Your task to perform on an android device: change timer sound Image 0: 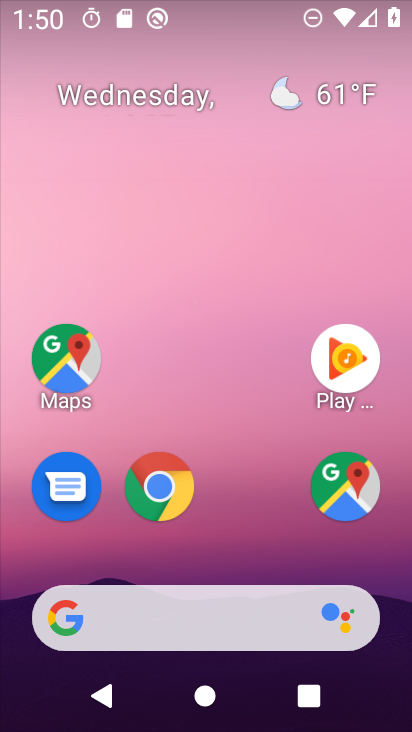
Step 0: press home button
Your task to perform on an android device: change timer sound Image 1: 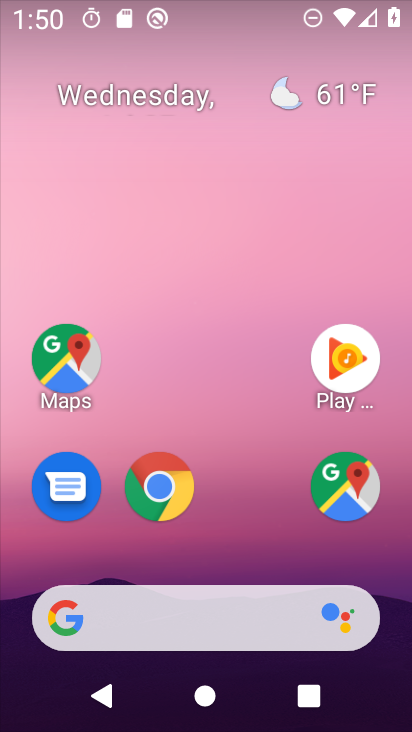
Step 1: drag from (264, 521) to (268, 246)
Your task to perform on an android device: change timer sound Image 2: 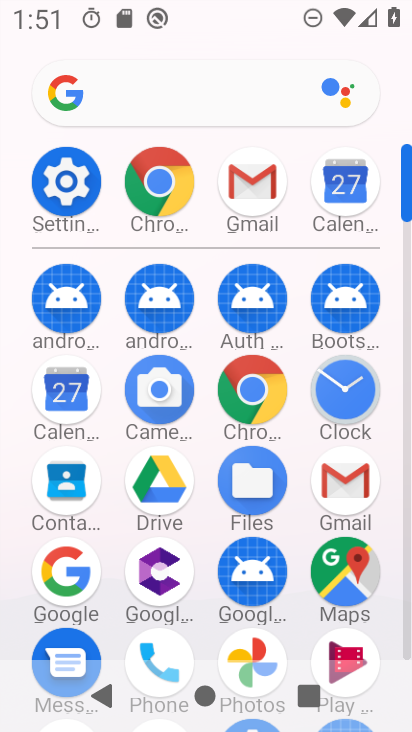
Step 2: drag from (258, 337) to (262, 237)
Your task to perform on an android device: change timer sound Image 3: 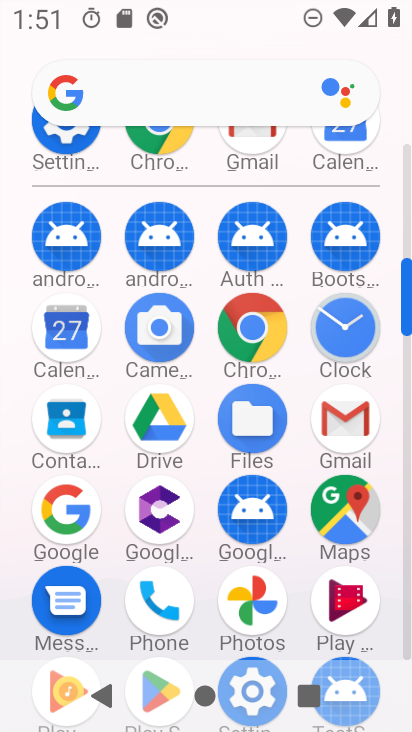
Step 3: click (350, 334)
Your task to perform on an android device: change timer sound Image 4: 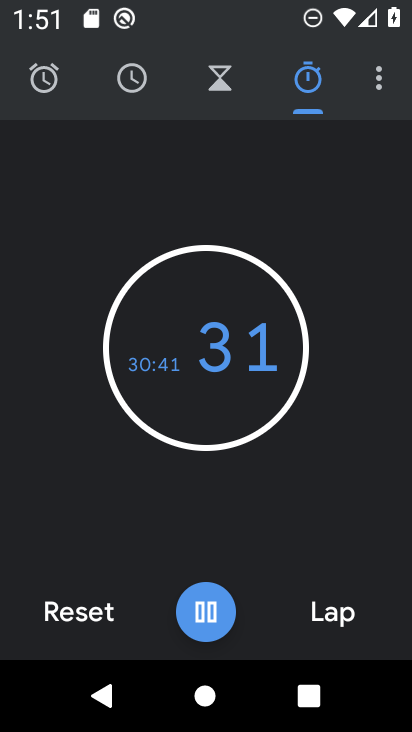
Step 4: click (381, 80)
Your task to perform on an android device: change timer sound Image 5: 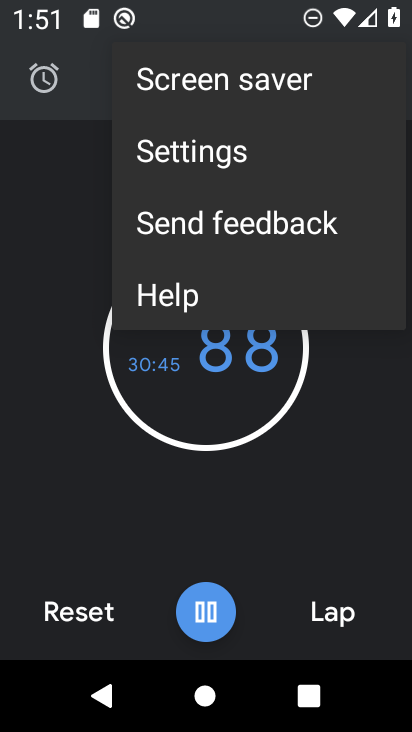
Step 5: click (274, 146)
Your task to perform on an android device: change timer sound Image 6: 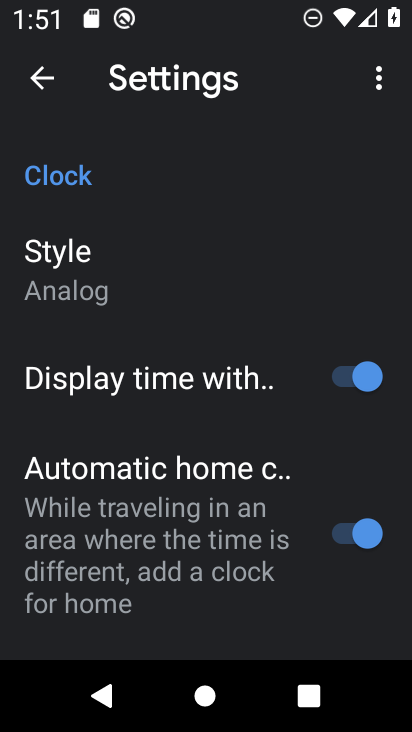
Step 6: drag from (297, 372) to (300, 280)
Your task to perform on an android device: change timer sound Image 7: 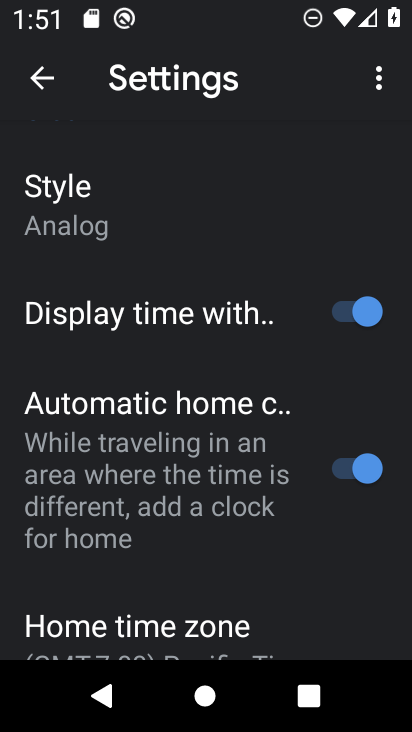
Step 7: drag from (285, 401) to (293, 341)
Your task to perform on an android device: change timer sound Image 8: 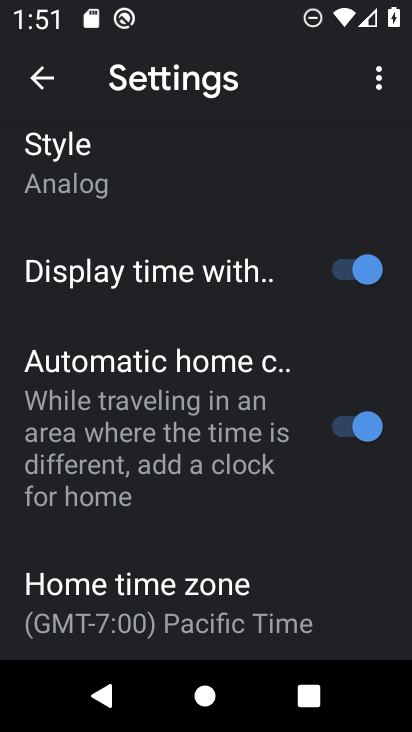
Step 8: drag from (290, 436) to (294, 349)
Your task to perform on an android device: change timer sound Image 9: 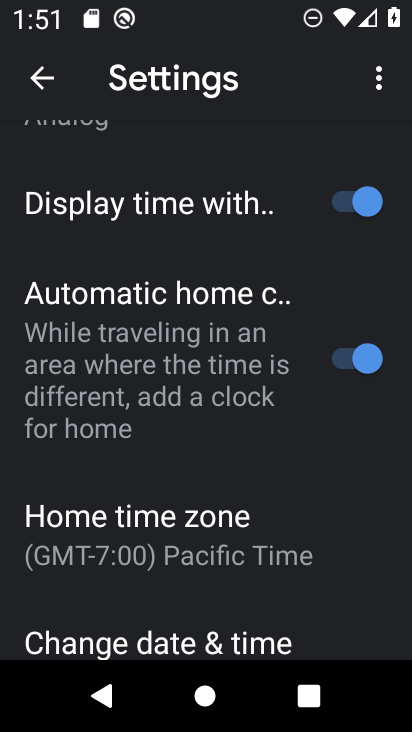
Step 9: drag from (289, 456) to (291, 386)
Your task to perform on an android device: change timer sound Image 10: 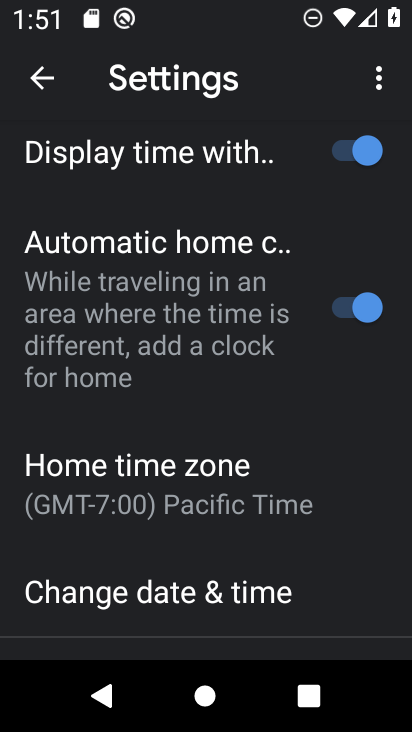
Step 10: drag from (304, 492) to (297, 406)
Your task to perform on an android device: change timer sound Image 11: 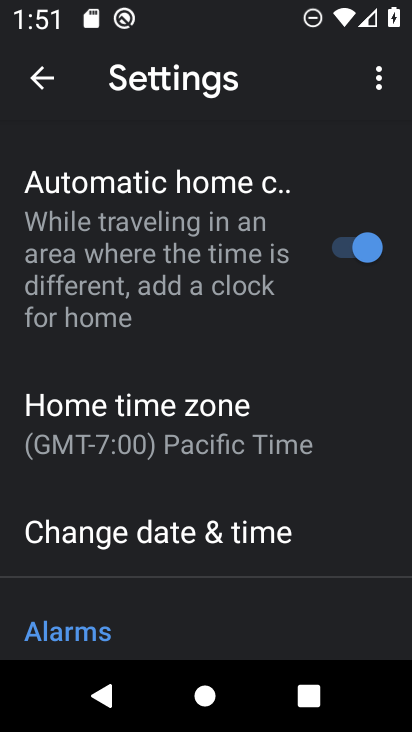
Step 11: drag from (294, 510) to (296, 407)
Your task to perform on an android device: change timer sound Image 12: 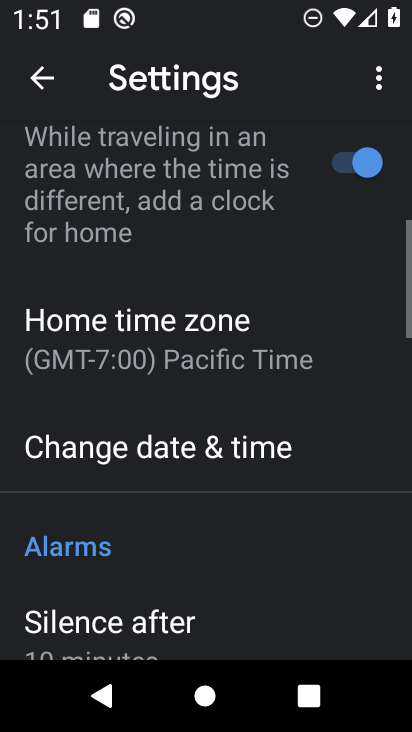
Step 12: drag from (295, 521) to (297, 439)
Your task to perform on an android device: change timer sound Image 13: 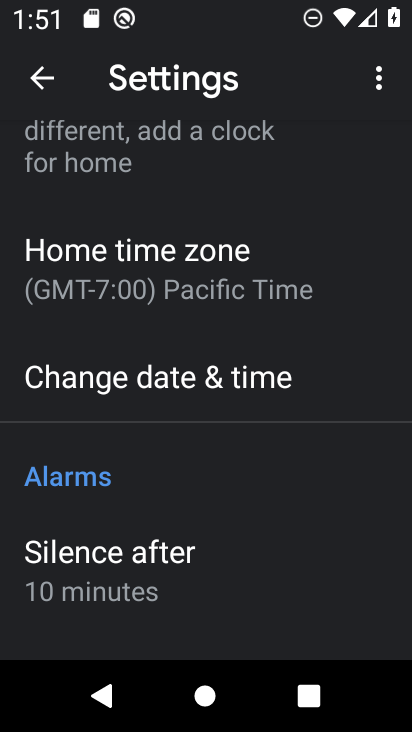
Step 13: drag from (281, 534) to (286, 444)
Your task to perform on an android device: change timer sound Image 14: 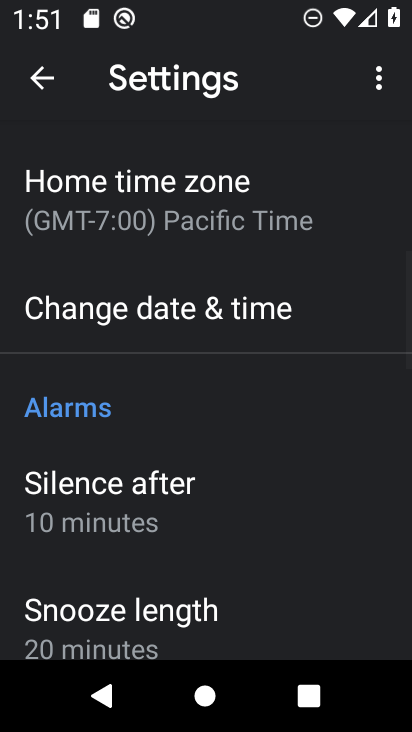
Step 14: drag from (287, 544) to (295, 453)
Your task to perform on an android device: change timer sound Image 15: 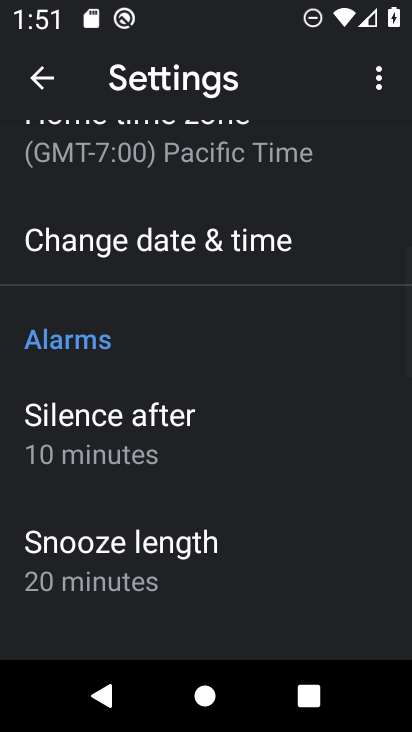
Step 15: drag from (292, 561) to (299, 412)
Your task to perform on an android device: change timer sound Image 16: 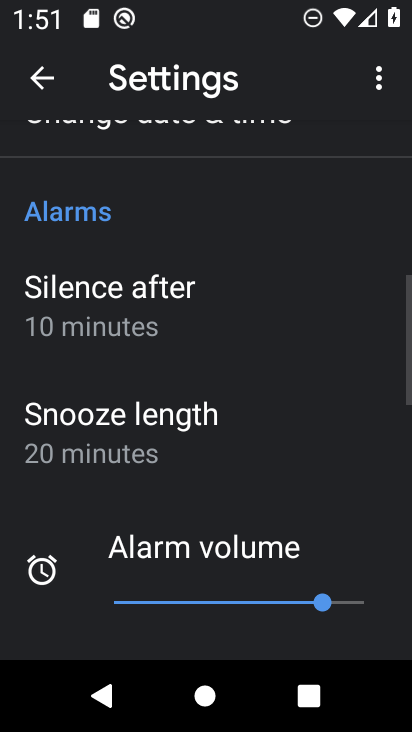
Step 16: drag from (328, 524) to (330, 393)
Your task to perform on an android device: change timer sound Image 17: 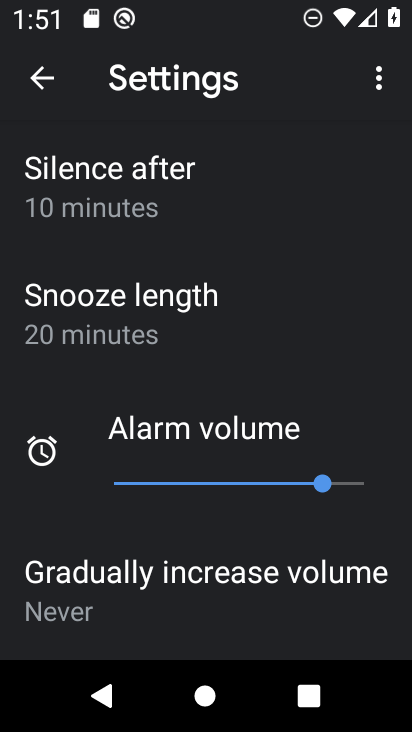
Step 17: drag from (292, 575) to (300, 460)
Your task to perform on an android device: change timer sound Image 18: 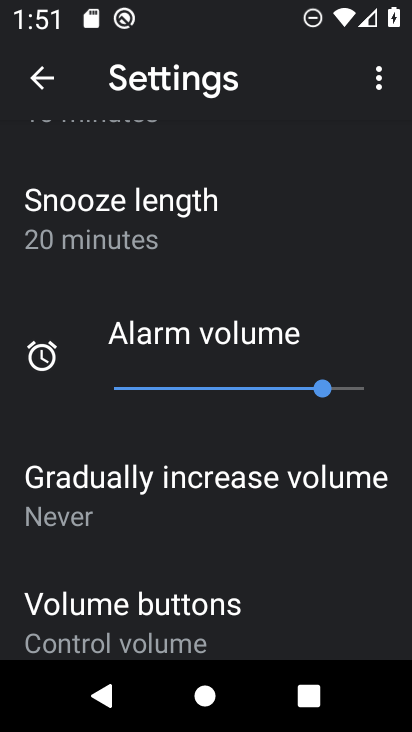
Step 18: drag from (298, 576) to (302, 458)
Your task to perform on an android device: change timer sound Image 19: 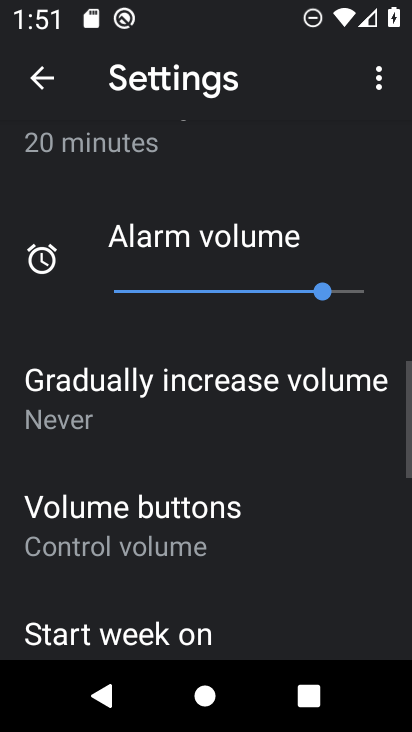
Step 19: drag from (276, 580) to (276, 440)
Your task to perform on an android device: change timer sound Image 20: 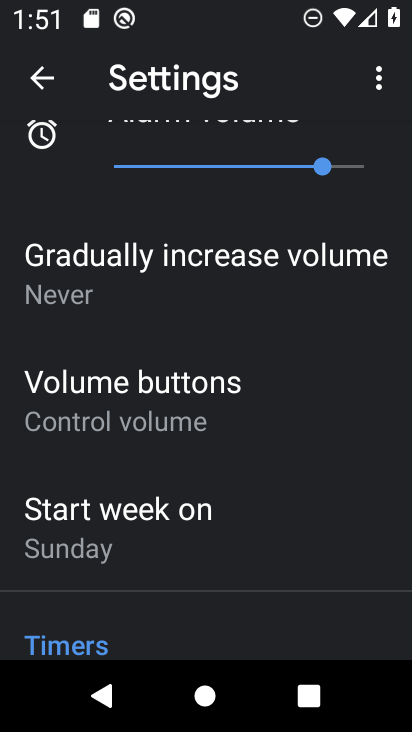
Step 20: drag from (251, 584) to (255, 476)
Your task to perform on an android device: change timer sound Image 21: 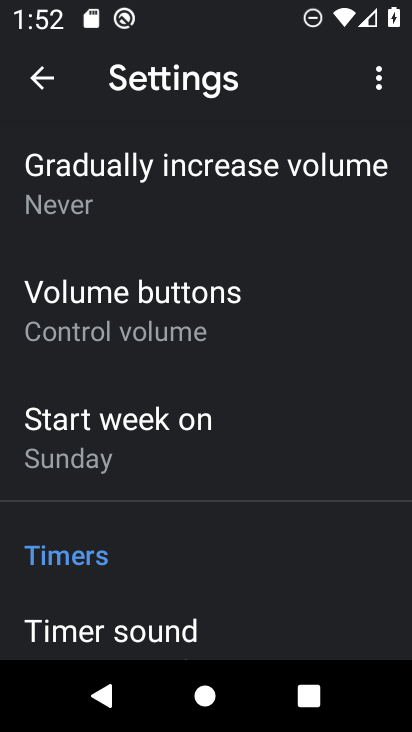
Step 21: click (256, 603)
Your task to perform on an android device: change timer sound Image 22: 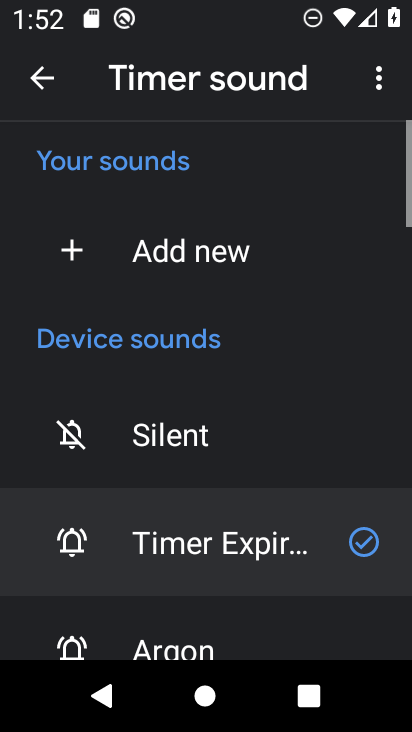
Step 22: click (249, 485)
Your task to perform on an android device: change timer sound Image 23: 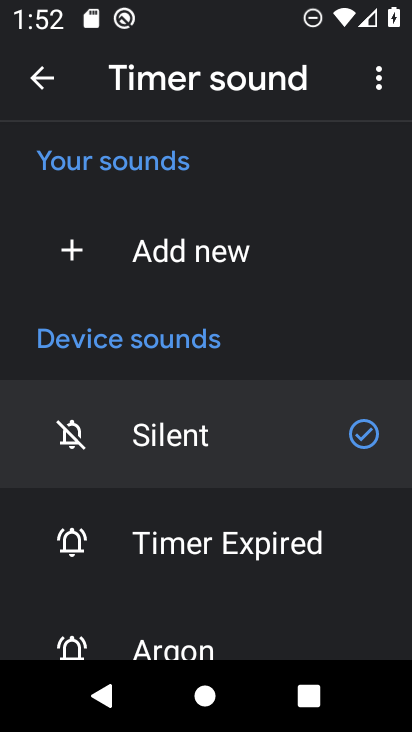
Step 23: task complete